Your task to perform on an android device: add a label to a message in the gmail app Image 0: 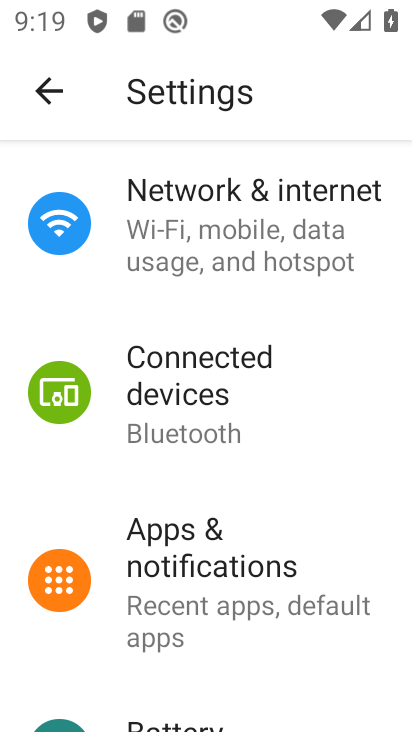
Step 0: press home button
Your task to perform on an android device: add a label to a message in the gmail app Image 1: 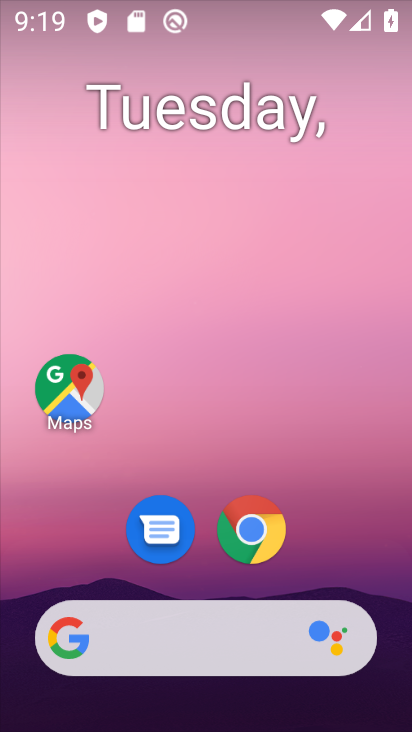
Step 1: drag from (74, 510) to (188, 115)
Your task to perform on an android device: add a label to a message in the gmail app Image 2: 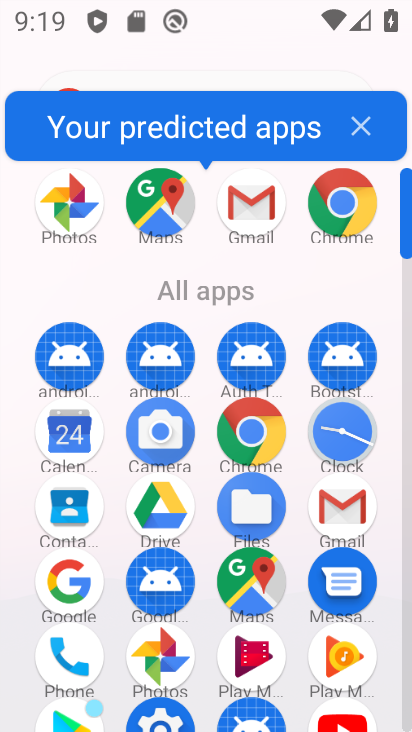
Step 2: click (264, 218)
Your task to perform on an android device: add a label to a message in the gmail app Image 3: 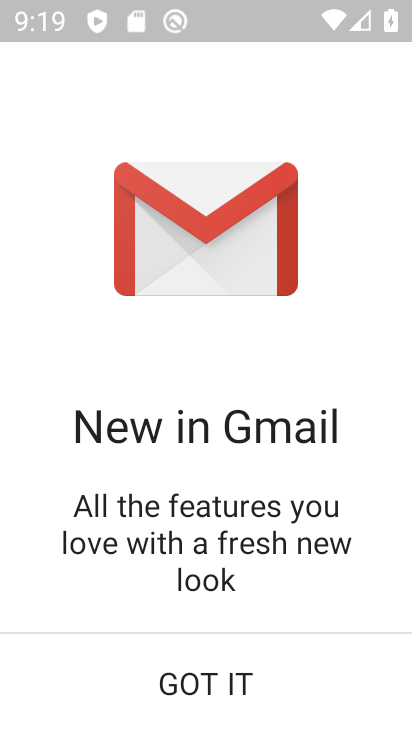
Step 3: click (221, 676)
Your task to perform on an android device: add a label to a message in the gmail app Image 4: 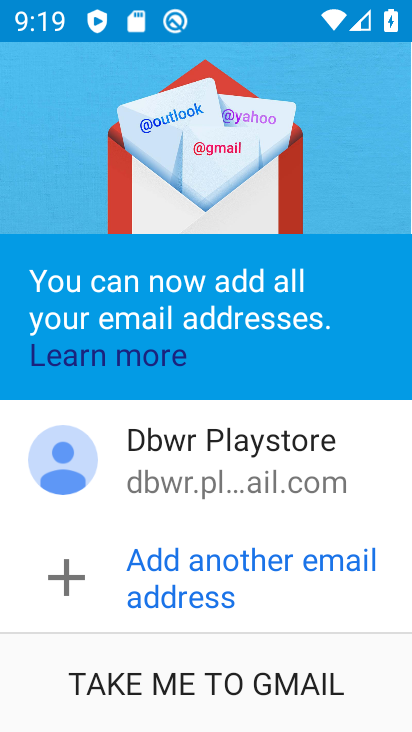
Step 4: click (298, 697)
Your task to perform on an android device: add a label to a message in the gmail app Image 5: 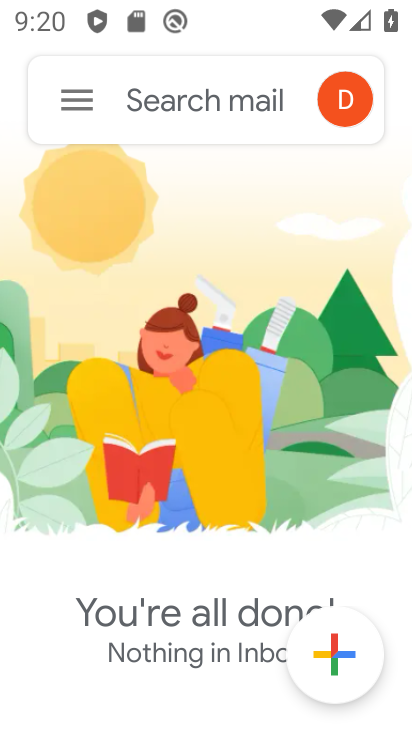
Step 5: click (69, 106)
Your task to perform on an android device: add a label to a message in the gmail app Image 6: 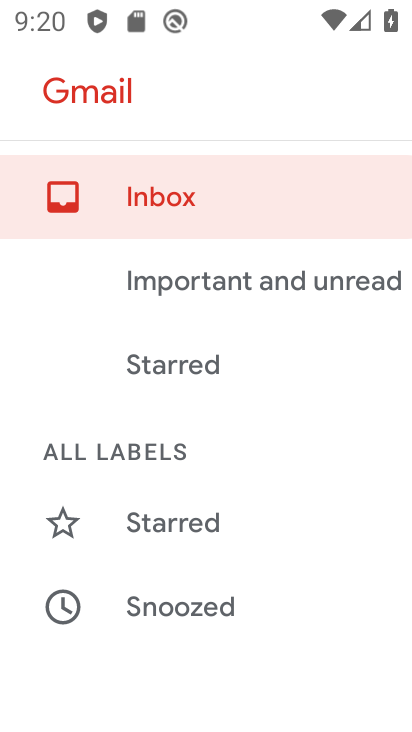
Step 6: drag from (253, 580) to (184, 245)
Your task to perform on an android device: add a label to a message in the gmail app Image 7: 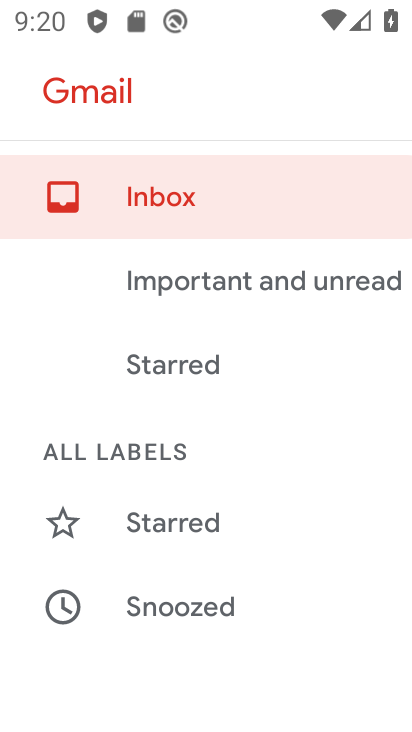
Step 7: drag from (201, 563) to (176, 197)
Your task to perform on an android device: add a label to a message in the gmail app Image 8: 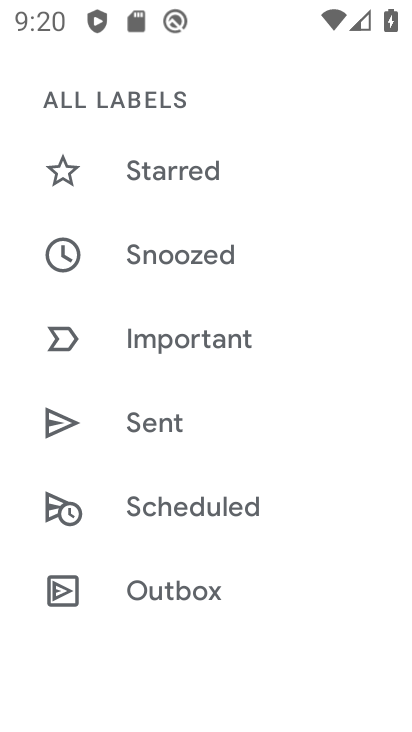
Step 8: drag from (180, 552) to (173, 158)
Your task to perform on an android device: add a label to a message in the gmail app Image 9: 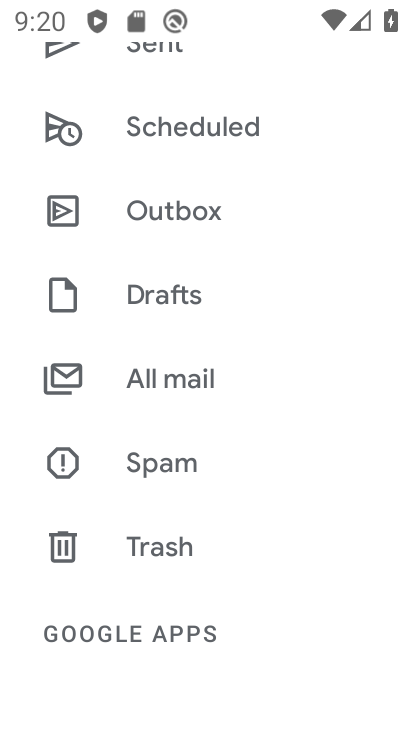
Step 9: click (198, 371)
Your task to perform on an android device: add a label to a message in the gmail app Image 10: 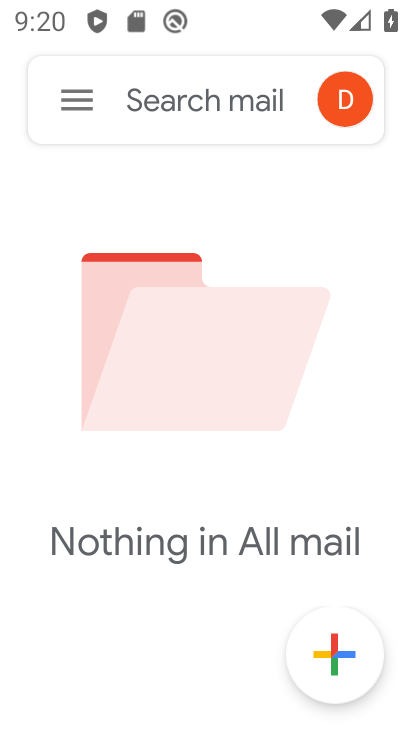
Step 10: task complete